Your task to perform on an android device: Open eBay Image 0: 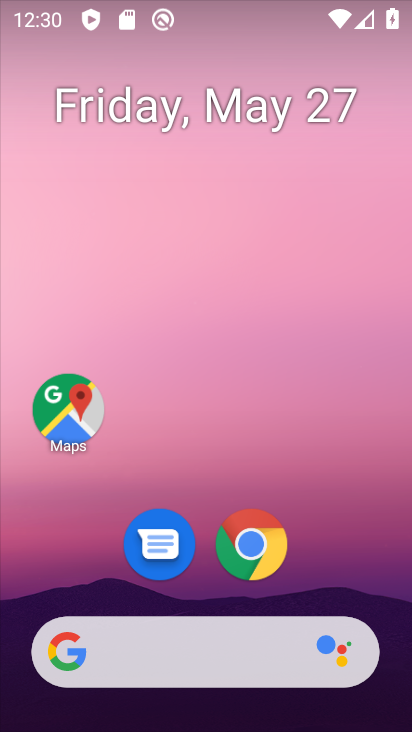
Step 0: click (209, 639)
Your task to perform on an android device: Open eBay Image 1: 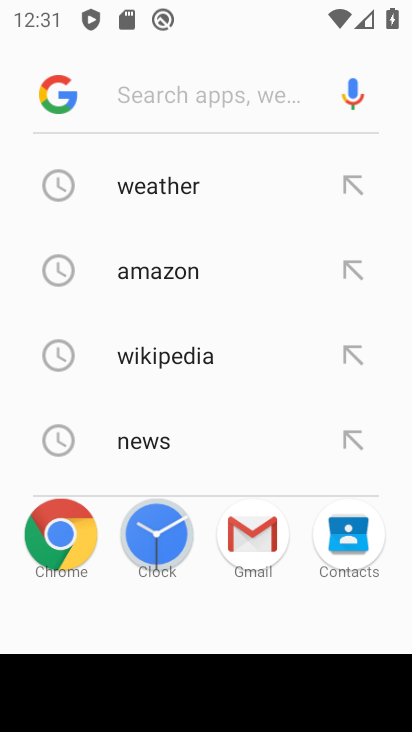
Step 1: type "ebay"
Your task to perform on an android device: Open eBay Image 2: 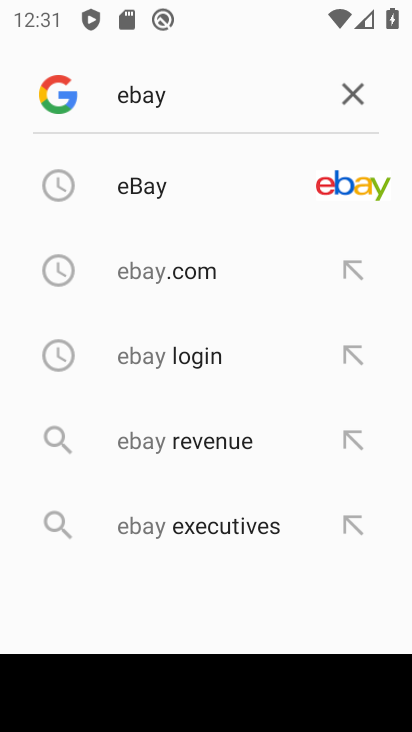
Step 2: click (167, 180)
Your task to perform on an android device: Open eBay Image 3: 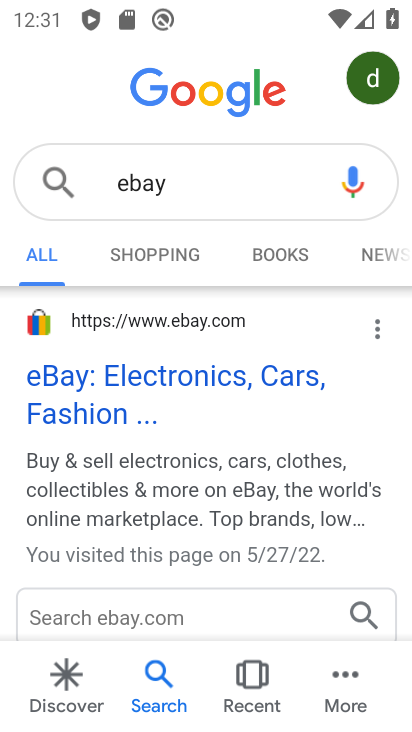
Step 3: task complete